Your task to perform on an android device: open app "Messages" (install if not already installed), go to login, and select forgot password Image 0: 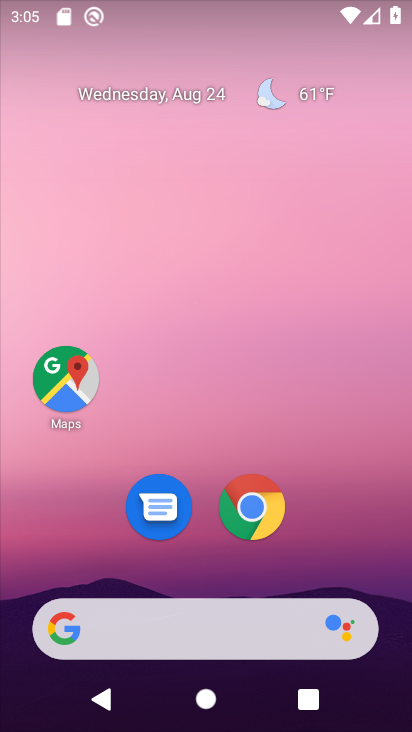
Step 0: drag from (191, 647) to (250, 61)
Your task to perform on an android device: open app "Messages" (install if not already installed), go to login, and select forgot password Image 1: 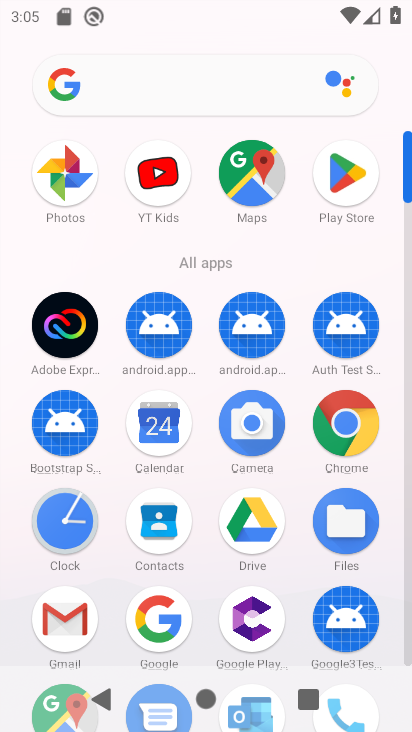
Step 1: click (350, 177)
Your task to perform on an android device: open app "Messages" (install if not already installed), go to login, and select forgot password Image 2: 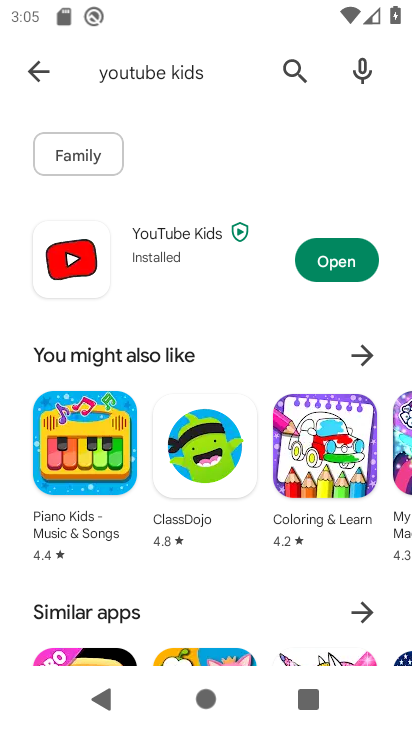
Step 2: press back button
Your task to perform on an android device: open app "Messages" (install if not already installed), go to login, and select forgot password Image 3: 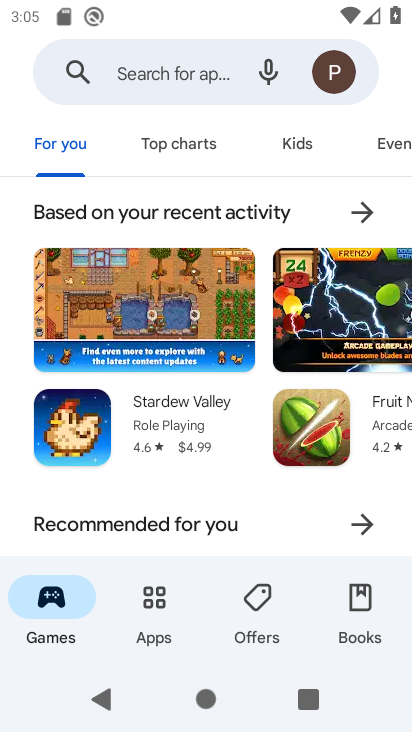
Step 3: click (193, 86)
Your task to perform on an android device: open app "Messages" (install if not already installed), go to login, and select forgot password Image 4: 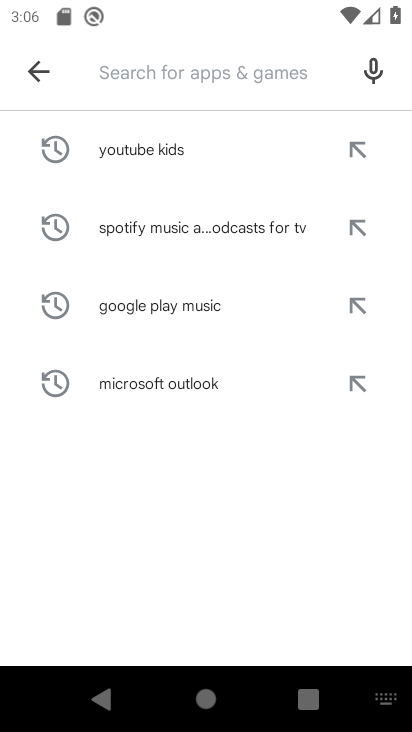
Step 4: type "Messages"
Your task to perform on an android device: open app "Messages" (install if not already installed), go to login, and select forgot password Image 5: 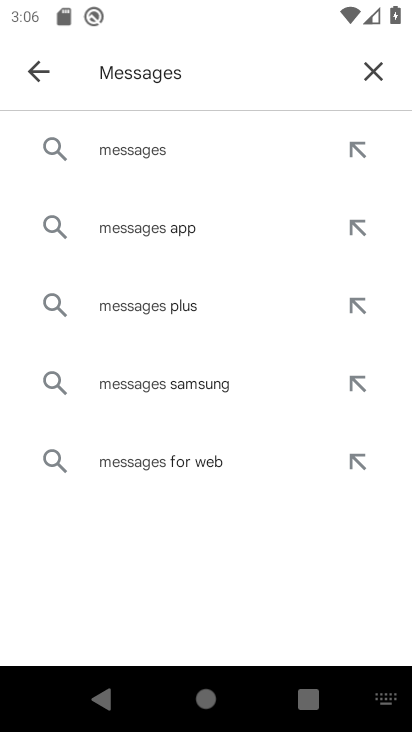
Step 5: click (128, 149)
Your task to perform on an android device: open app "Messages" (install if not already installed), go to login, and select forgot password Image 6: 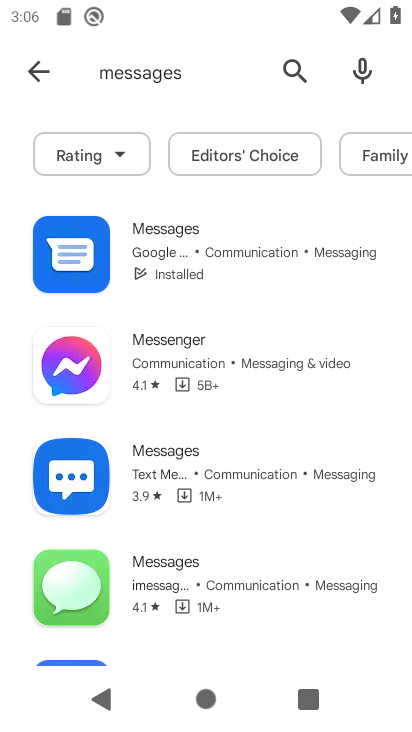
Step 6: click (161, 235)
Your task to perform on an android device: open app "Messages" (install if not already installed), go to login, and select forgot password Image 7: 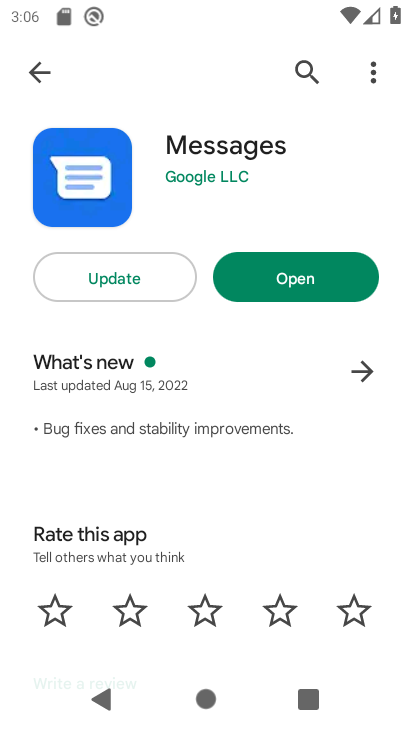
Step 7: click (278, 280)
Your task to perform on an android device: open app "Messages" (install if not already installed), go to login, and select forgot password Image 8: 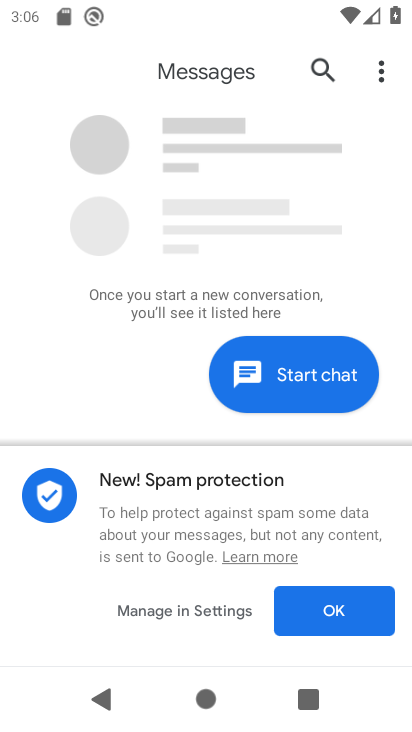
Step 8: click (336, 612)
Your task to perform on an android device: open app "Messages" (install if not already installed), go to login, and select forgot password Image 9: 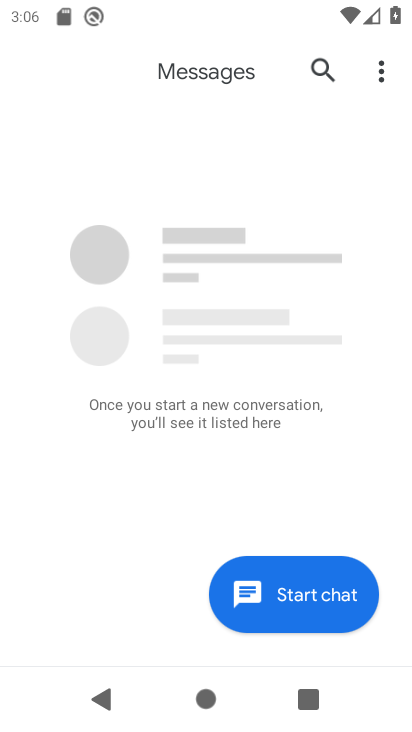
Step 9: task complete